Your task to perform on an android device: What's the weather today? Image 0: 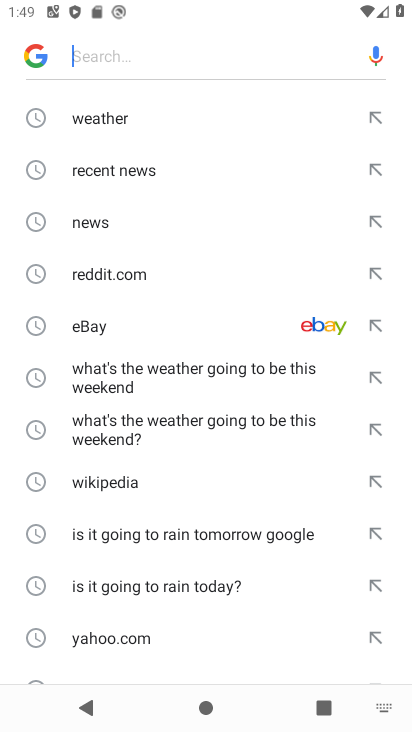
Step 0: press home button
Your task to perform on an android device: What's the weather today? Image 1: 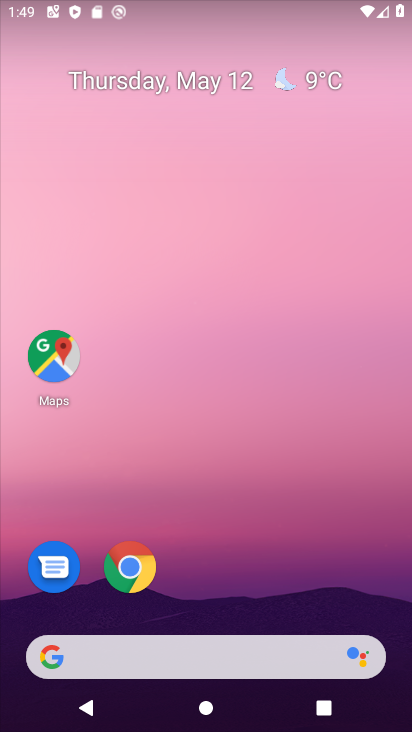
Step 1: click (320, 81)
Your task to perform on an android device: What's the weather today? Image 2: 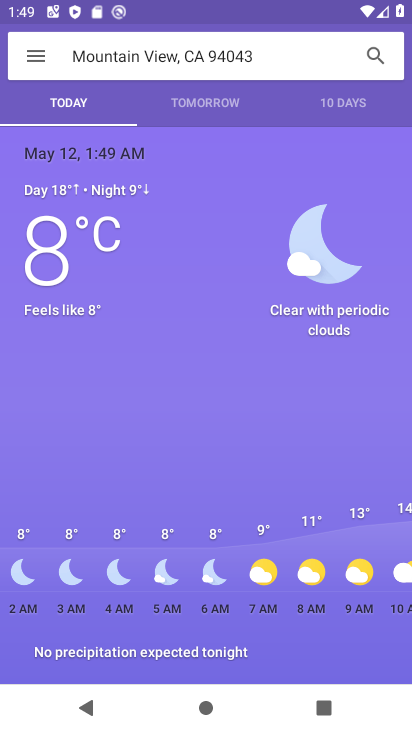
Step 2: task complete